Your task to perform on an android device: uninstall "Google Docs" Image 0: 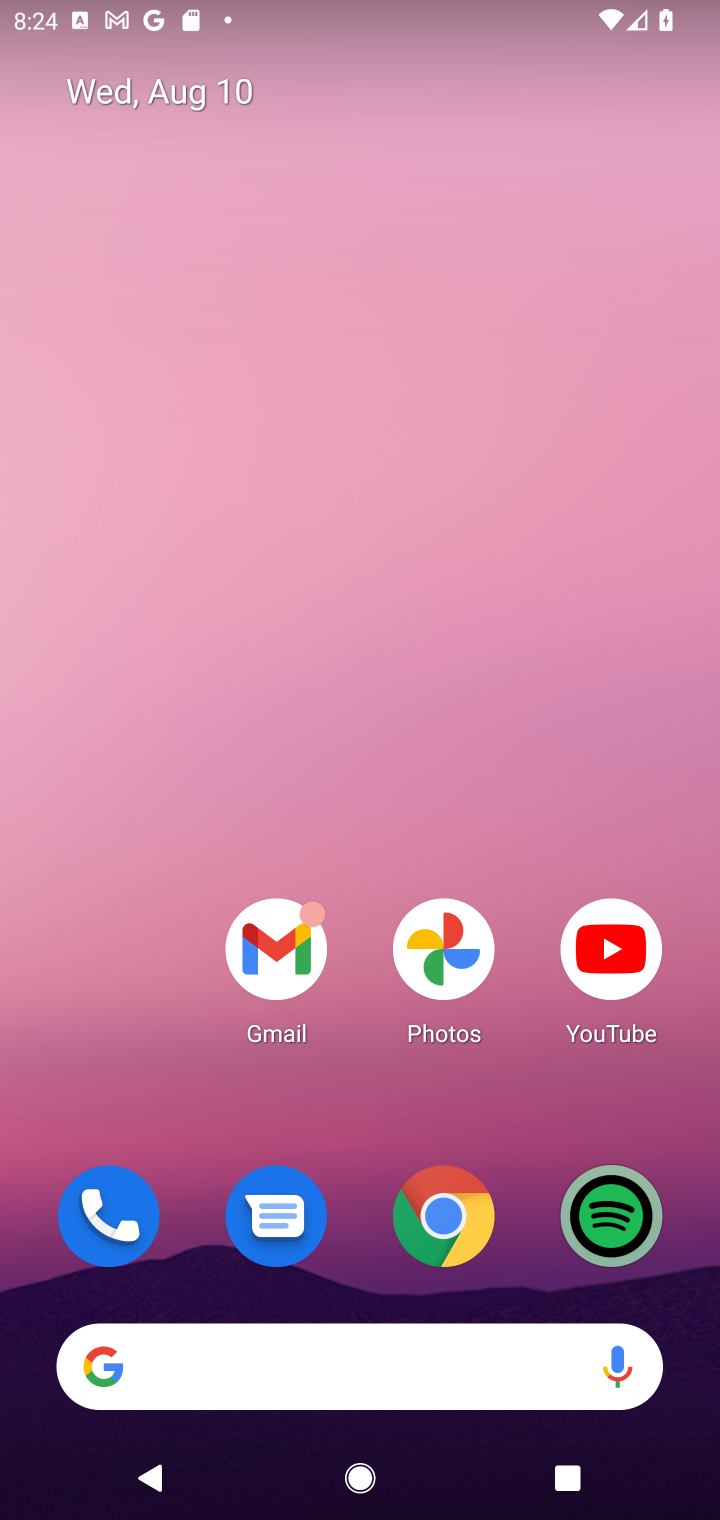
Step 0: drag from (328, 1281) to (459, 111)
Your task to perform on an android device: uninstall "Google Docs" Image 1: 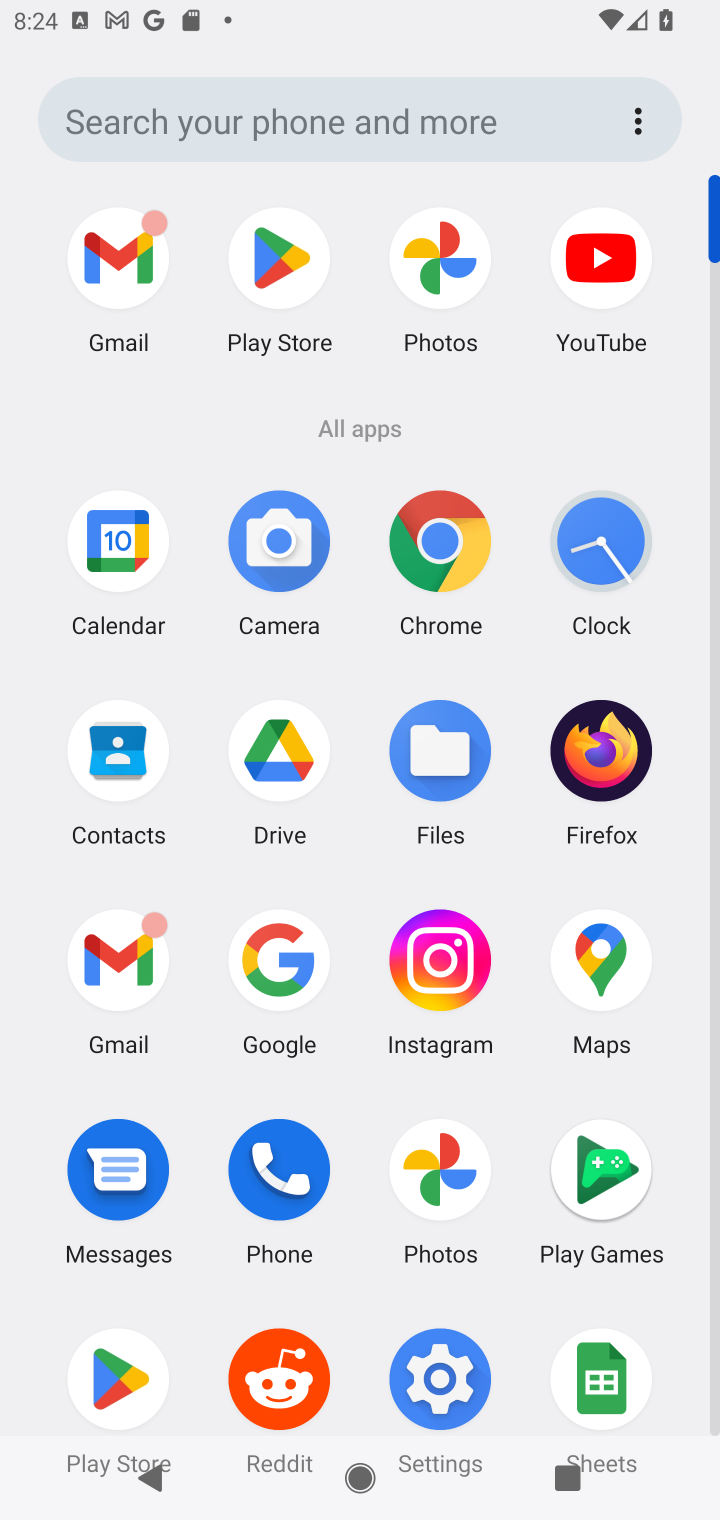
Step 1: click (295, 228)
Your task to perform on an android device: uninstall "Google Docs" Image 2: 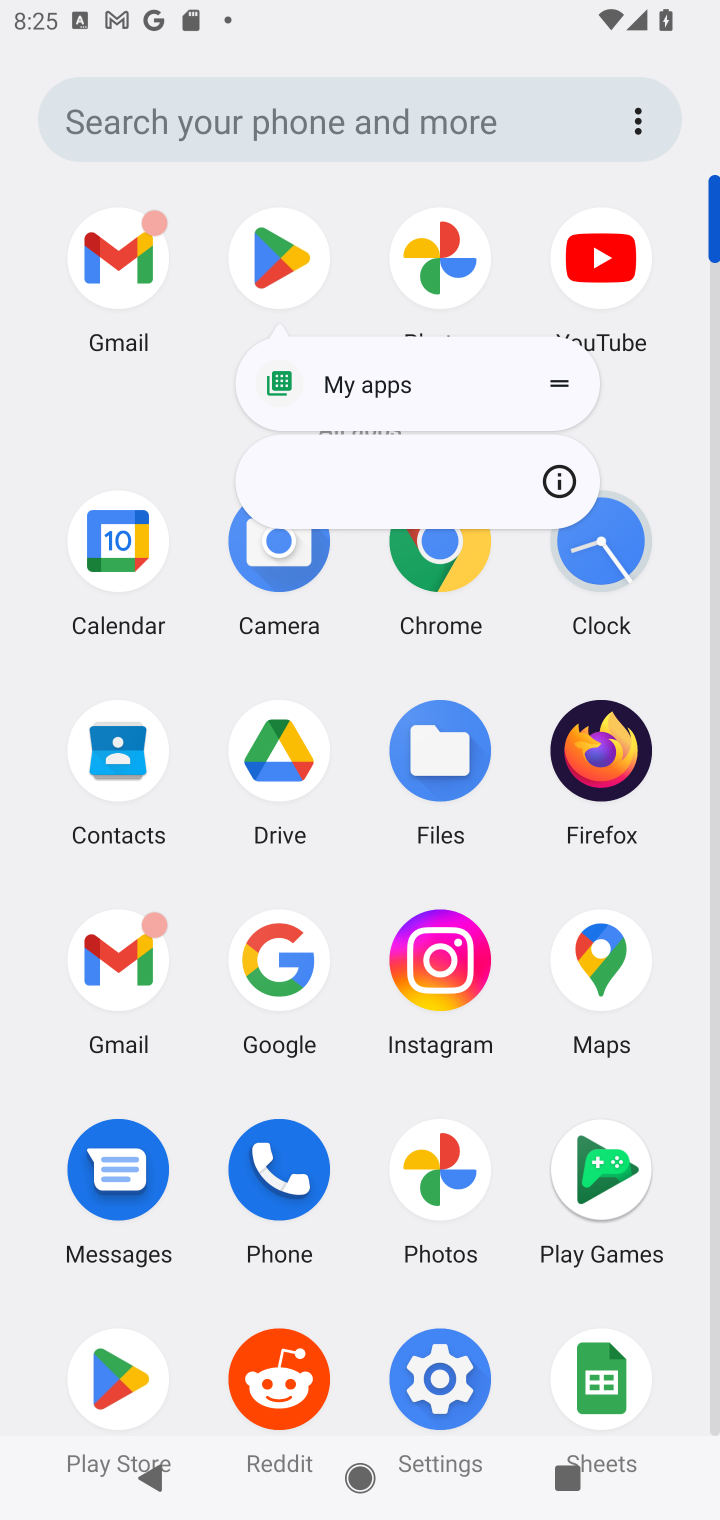
Step 2: click (275, 234)
Your task to perform on an android device: uninstall "Google Docs" Image 3: 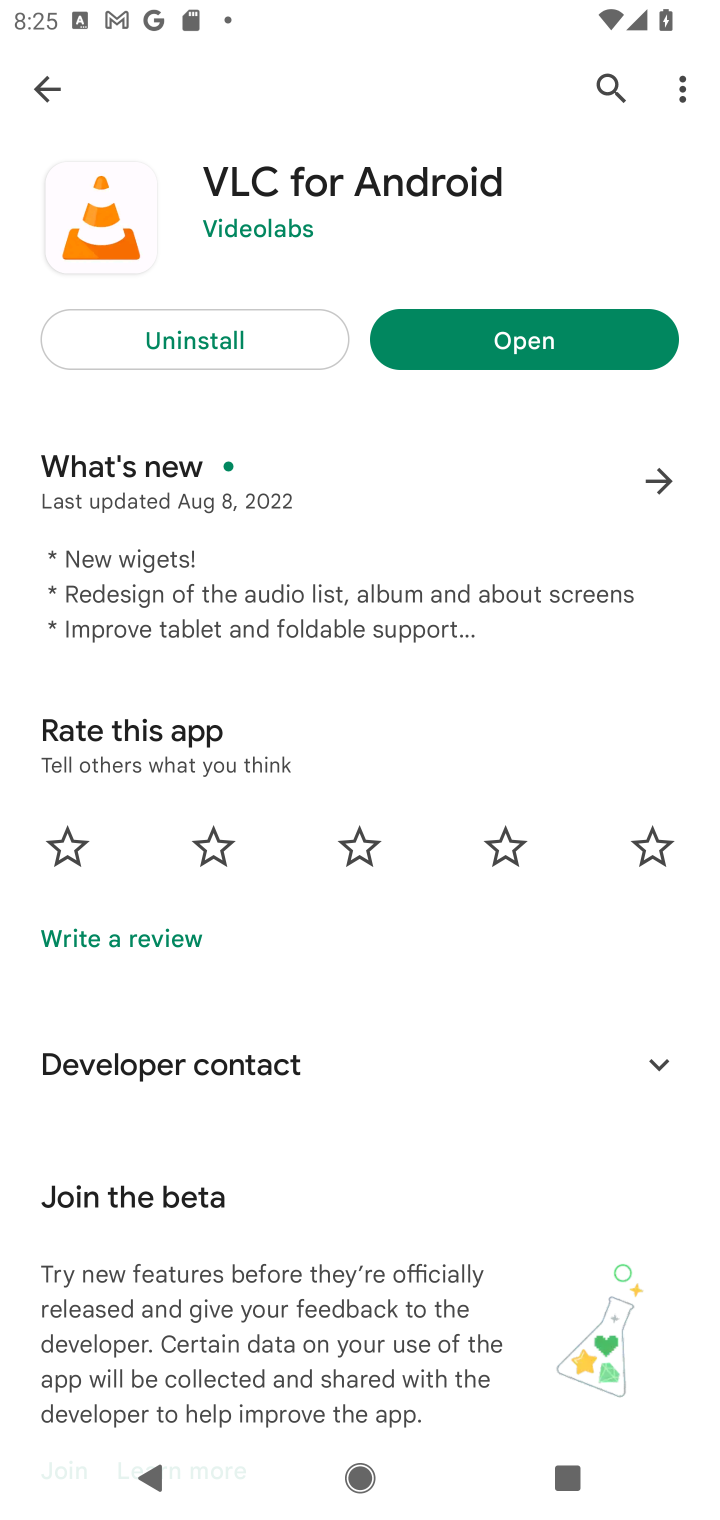
Step 3: click (604, 86)
Your task to perform on an android device: uninstall "Google Docs" Image 4: 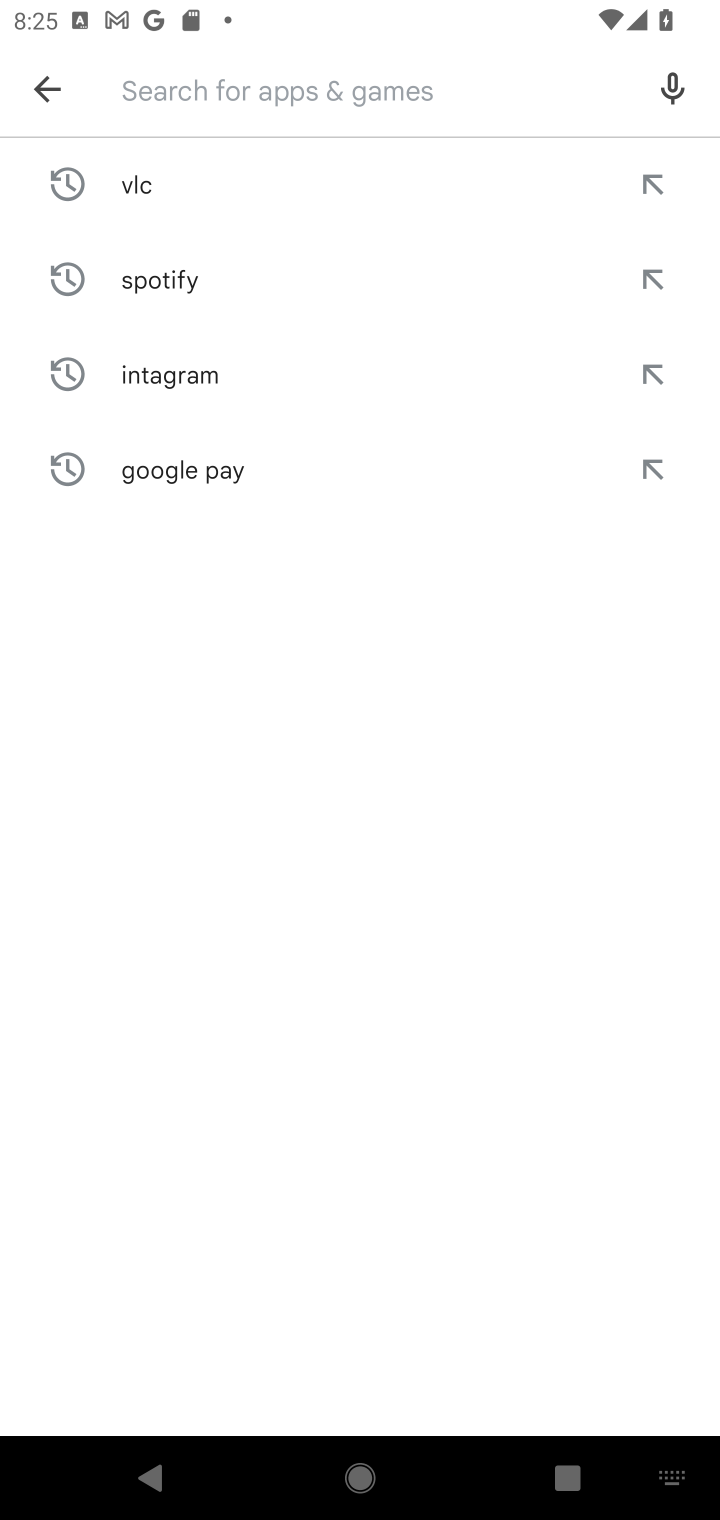
Step 4: click (229, 74)
Your task to perform on an android device: uninstall "Google Docs" Image 5: 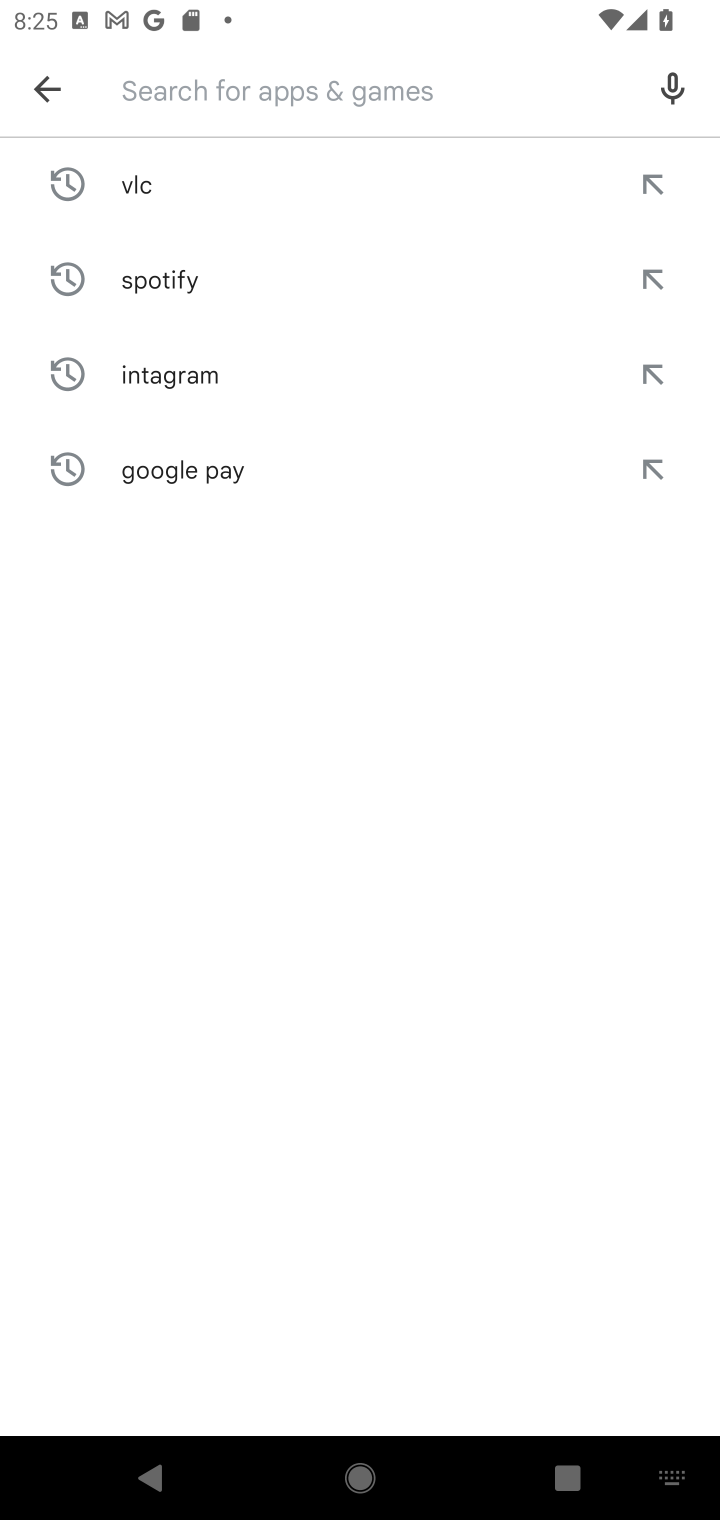
Step 5: type "Google Docs"
Your task to perform on an android device: uninstall "Google Docs" Image 6: 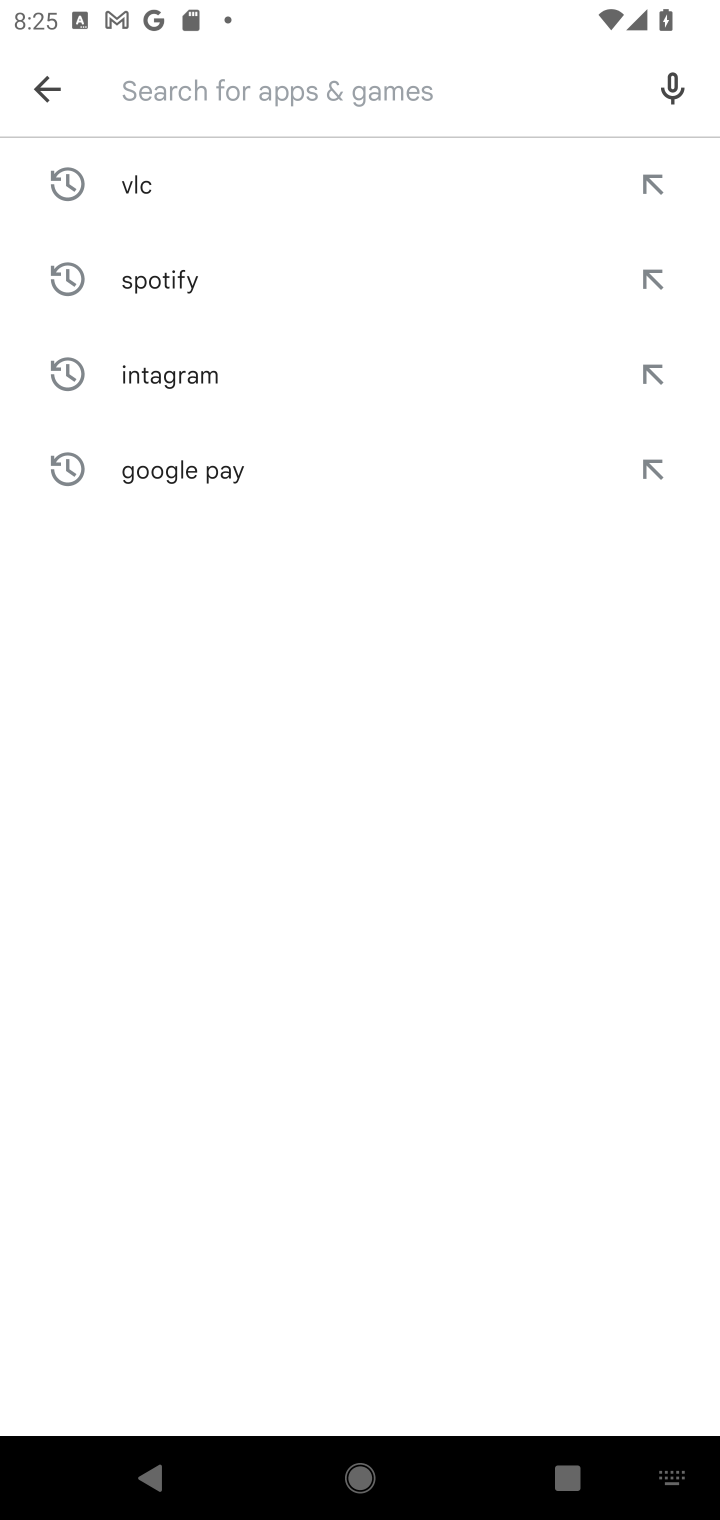
Step 6: click (397, 886)
Your task to perform on an android device: uninstall "Google Docs" Image 7: 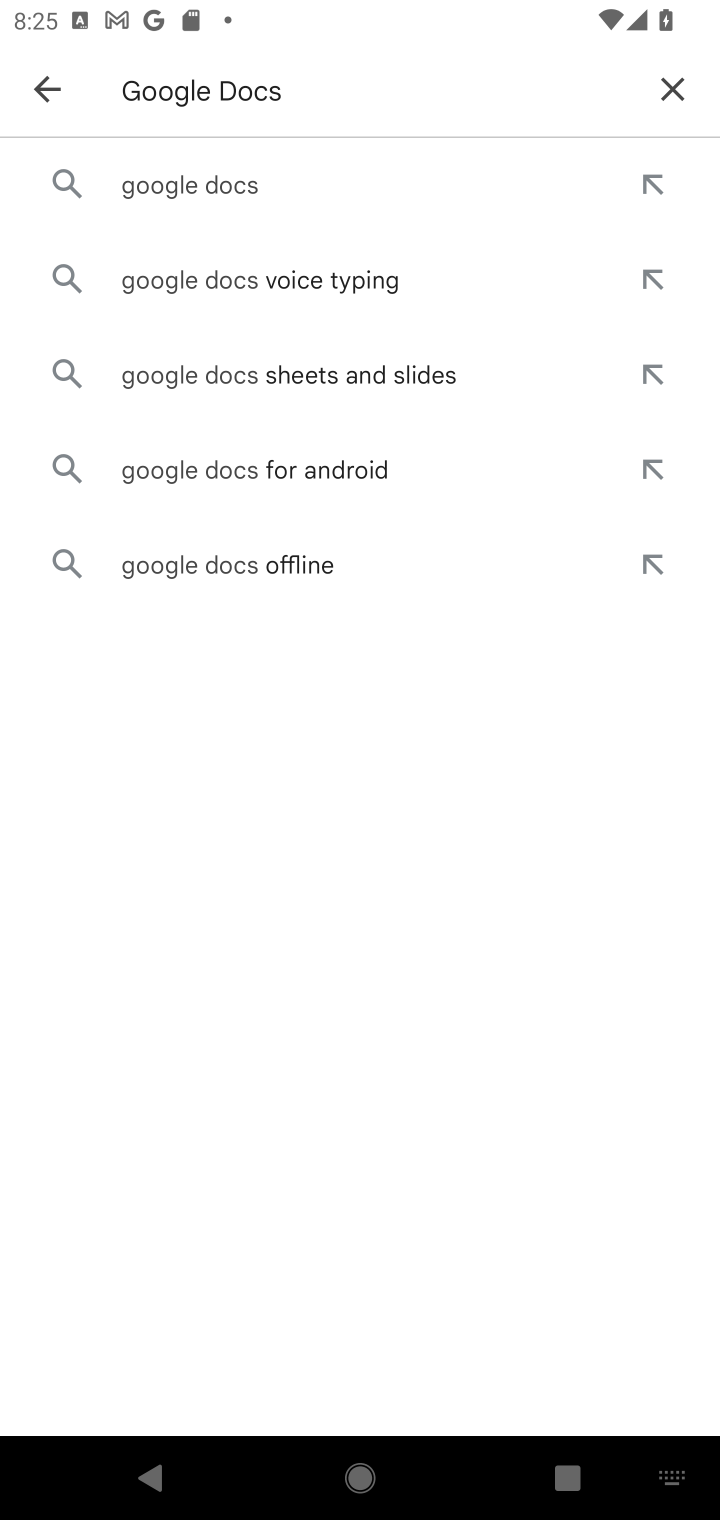
Step 7: click (132, 178)
Your task to perform on an android device: uninstall "Google Docs" Image 8: 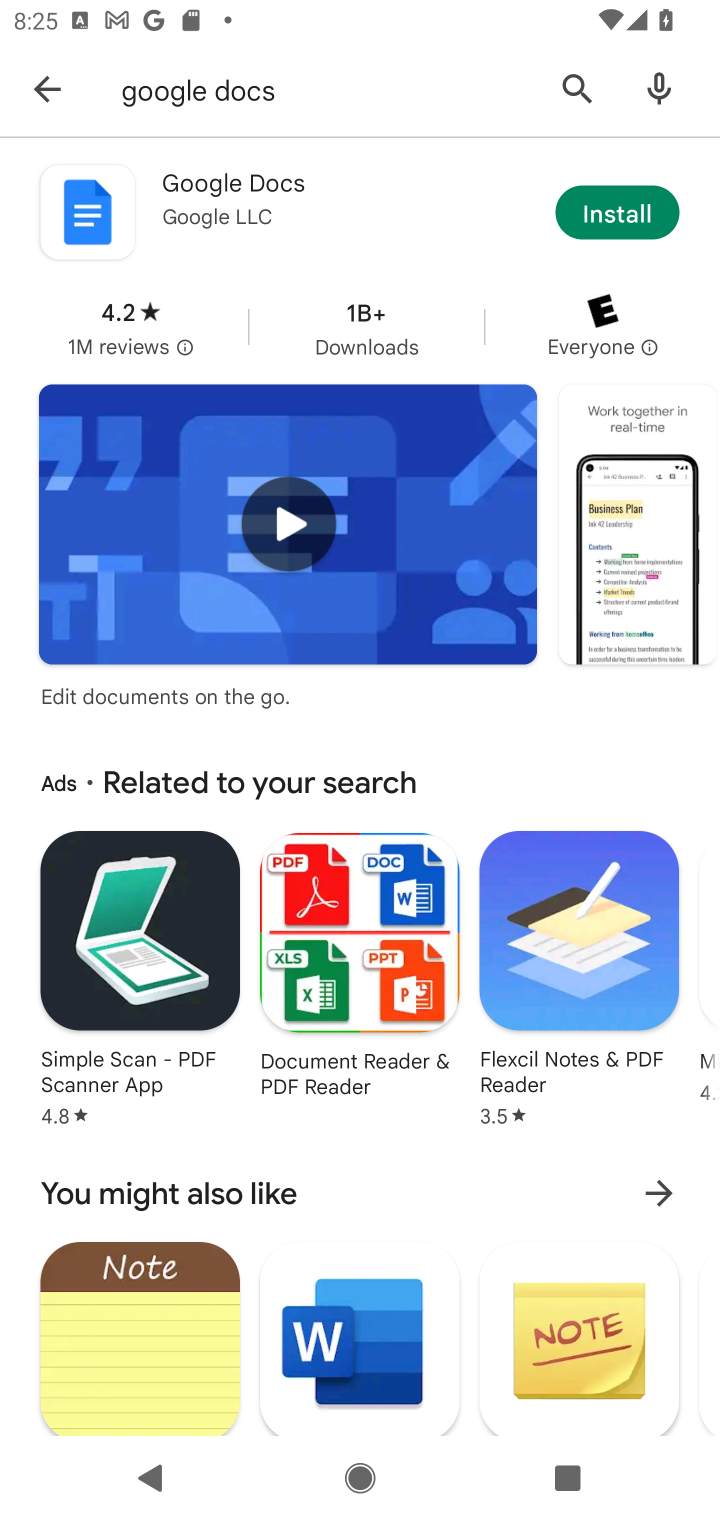
Step 8: task complete